Your task to perform on an android device: Go to Yahoo.com Image 0: 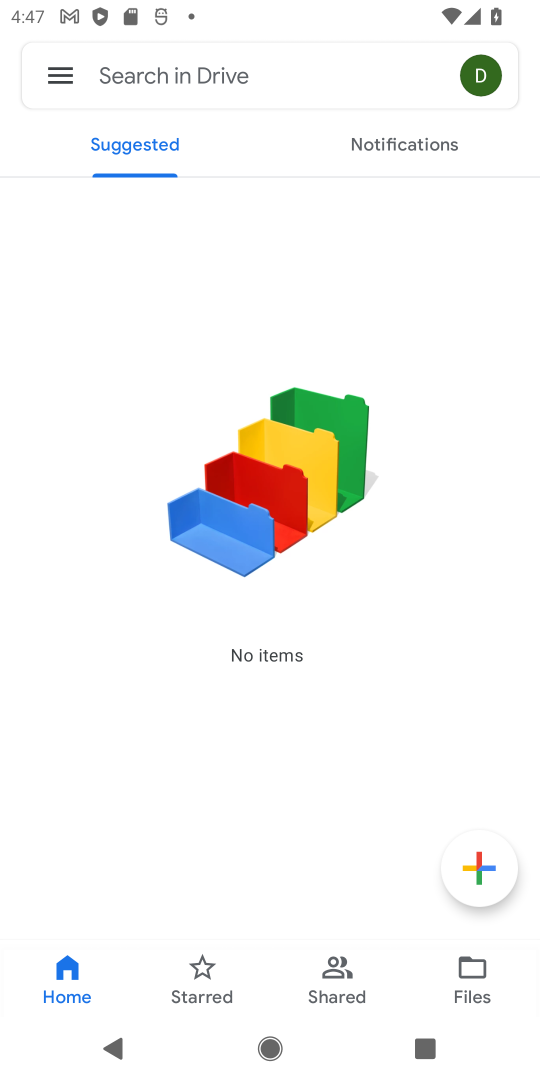
Step 0: press back button
Your task to perform on an android device: Go to Yahoo.com Image 1: 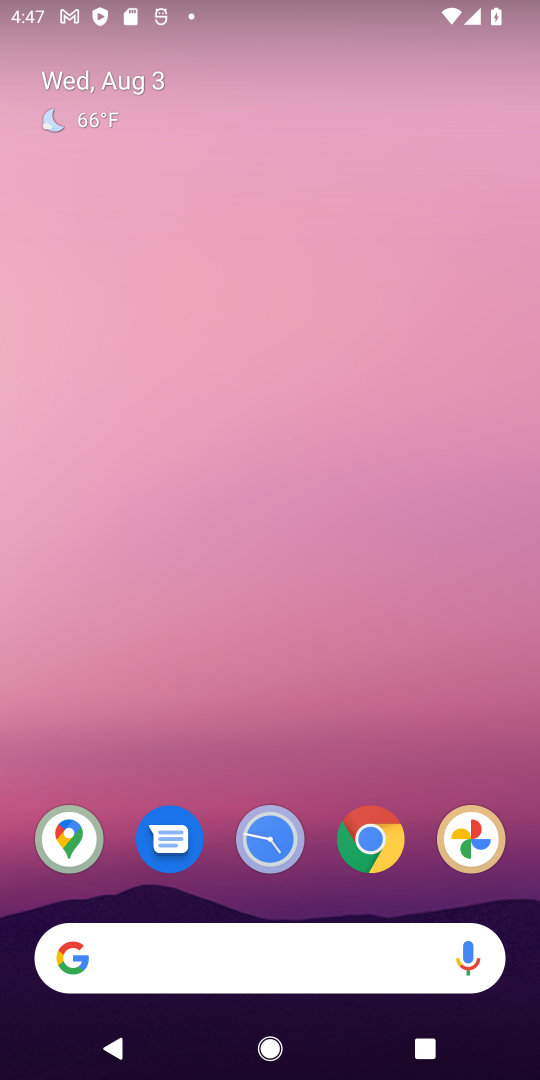
Step 1: click (382, 833)
Your task to perform on an android device: Go to Yahoo.com Image 2: 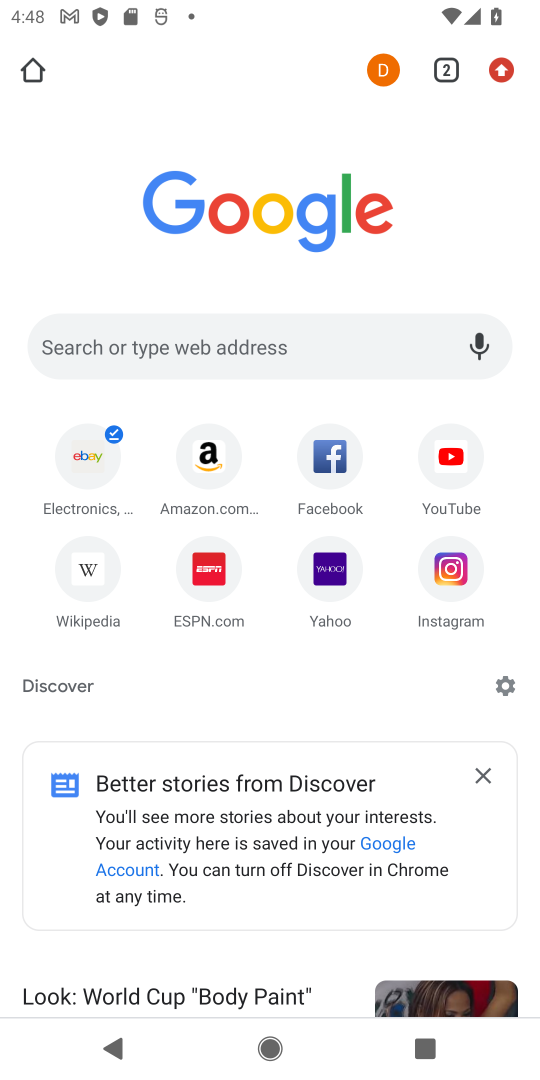
Step 2: click (303, 577)
Your task to perform on an android device: Go to Yahoo.com Image 3: 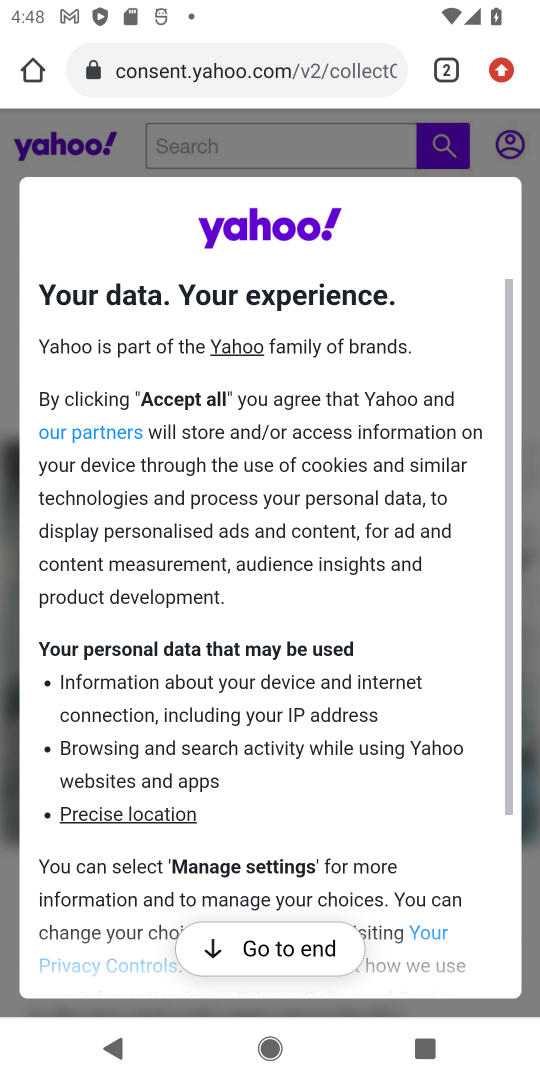
Step 3: task complete